Your task to perform on an android device: see sites visited before in the chrome app Image 0: 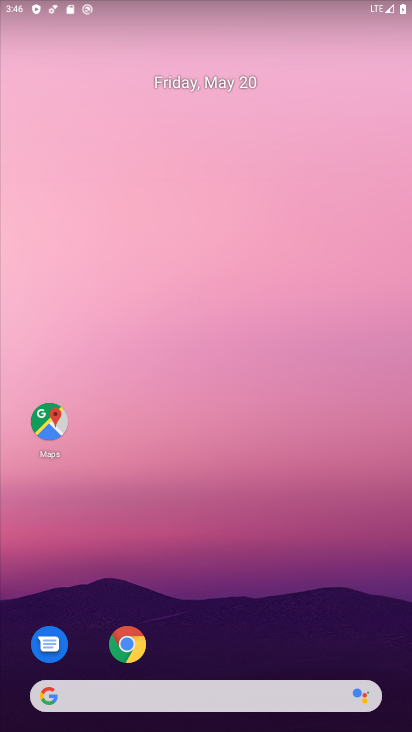
Step 0: drag from (275, 718) to (277, 137)
Your task to perform on an android device: see sites visited before in the chrome app Image 1: 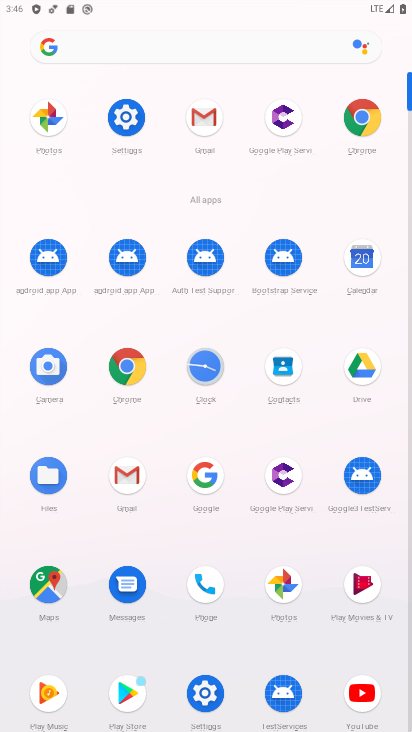
Step 1: click (119, 377)
Your task to perform on an android device: see sites visited before in the chrome app Image 2: 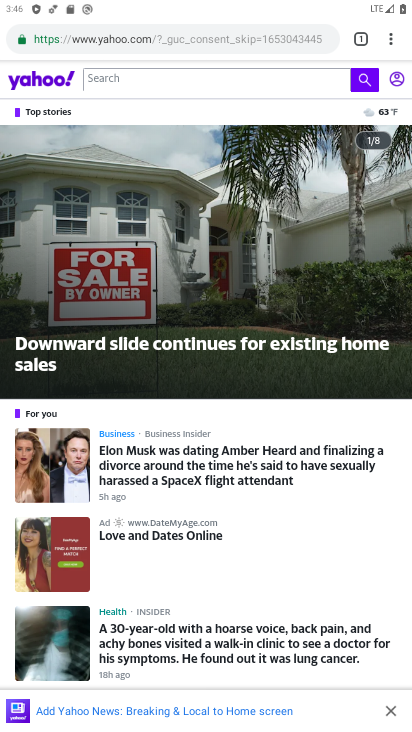
Step 2: click (384, 39)
Your task to perform on an android device: see sites visited before in the chrome app Image 3: 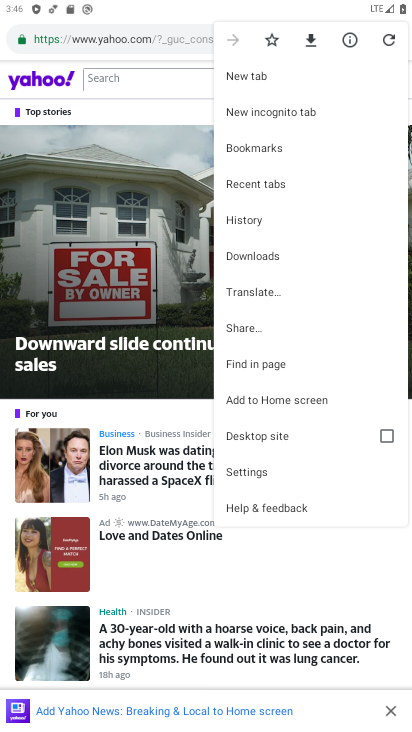
Step 3: click (267, 477)
Your task to perform on an android device: see sites visited before in the chrome app Image 4: 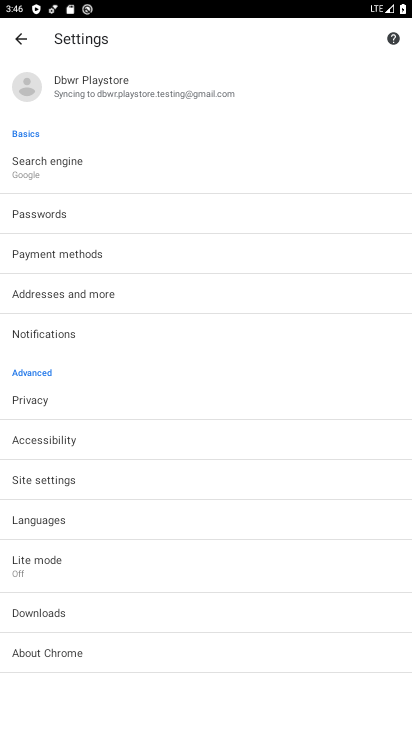
Step 4: drag from (200, 548) to (196, 409)
Your task to perform on an android device: see sites visited before in the chrome app Image 5: 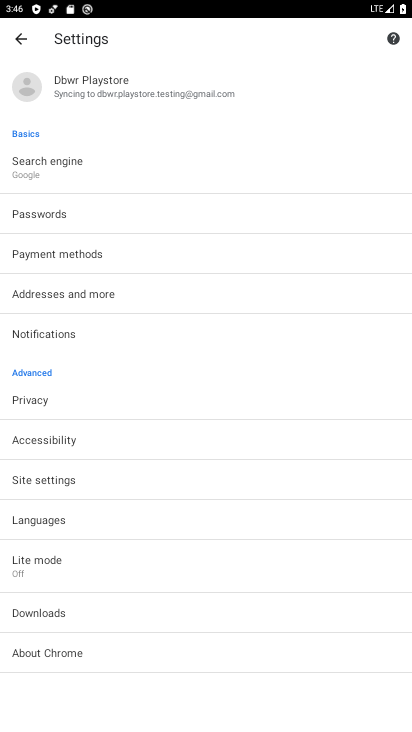
Step 5: click (31, 487)
Your task to perform on an android device: see sites visited before in the chrome app Image 6: 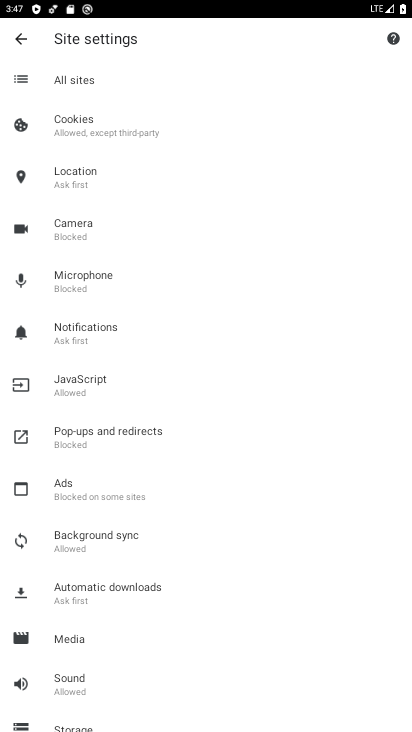
Step 6: click (73, 86)
Your task to perform on an android device: see sites visited before in the chrome app Image 7: 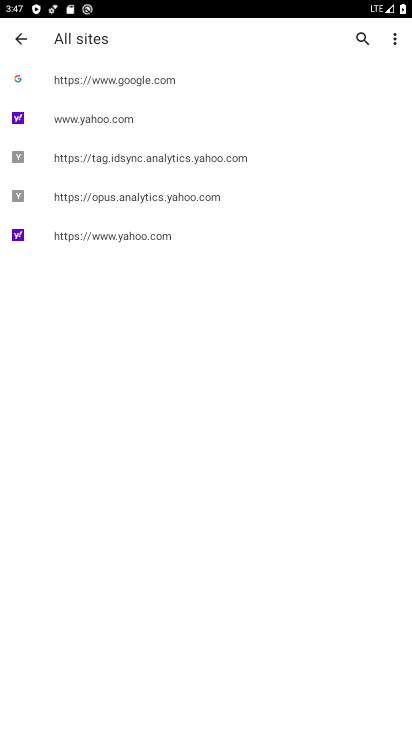
Step 7: task complete